Your task to perform on an android device: change the clock display to show seconds Image 0: 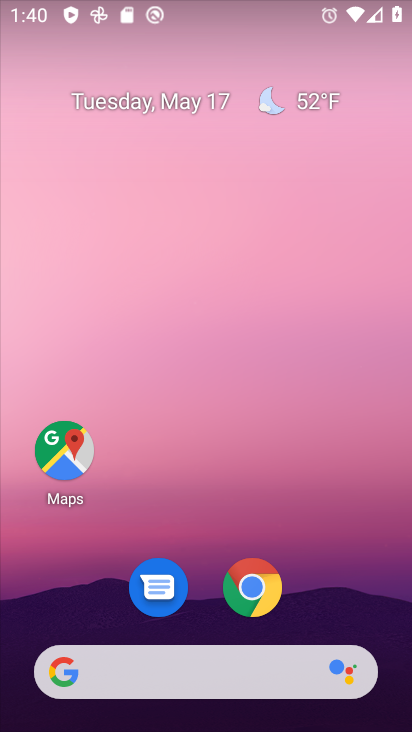
Step 0: drag from (374, 603) to (267, 233)
Your task to perform on an android device: change the clock display to show seconds Image 1: 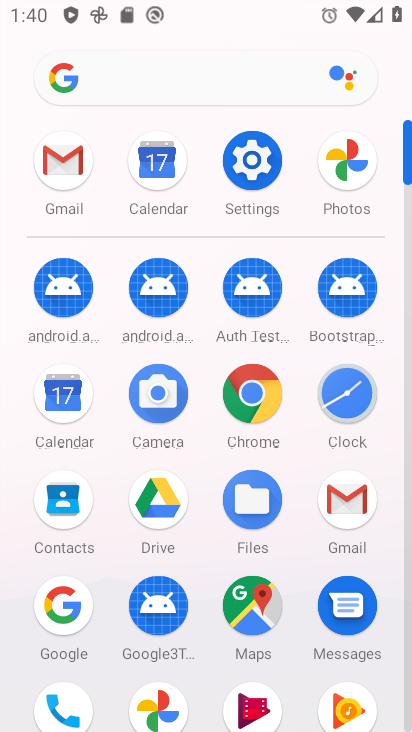
Step 1: click (336, 412)
Your task to perform on an android device: change the clock display to show seconds Image 2: 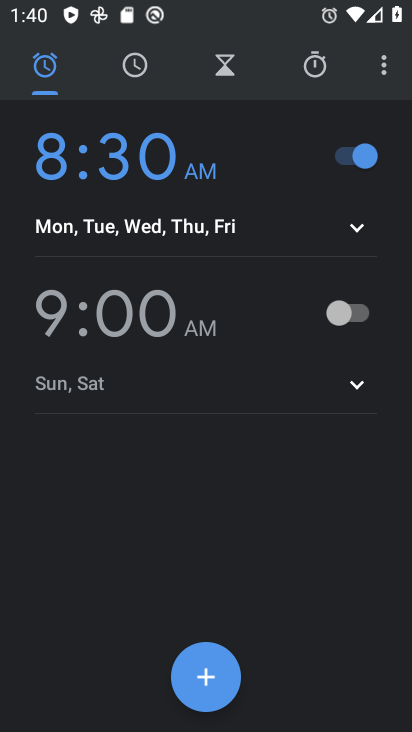
Step 2: click (378, 62)
Your task to perform on an android device: change the clock display to show seconds Image 3: 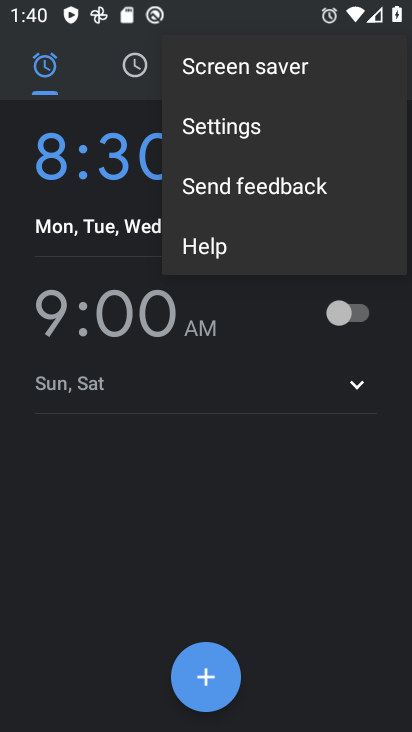
Step 3: click (269, 142)
Your task to perform on an android device: change the clock display to show seconds Image 4: 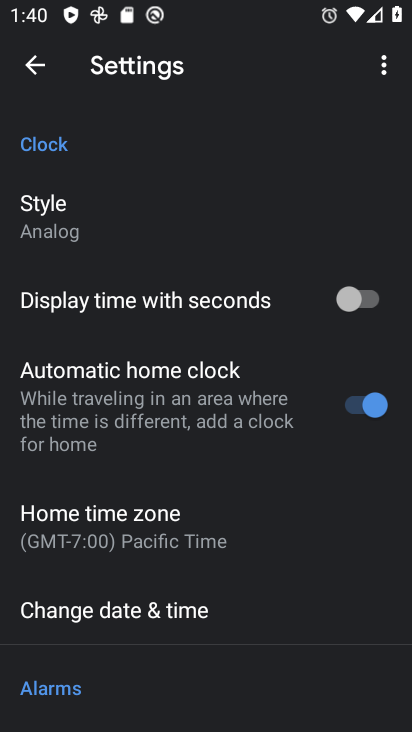
Step 4: click (349, 300)
Your task to perform on an android device: change the clock display to show seconds Image 5: 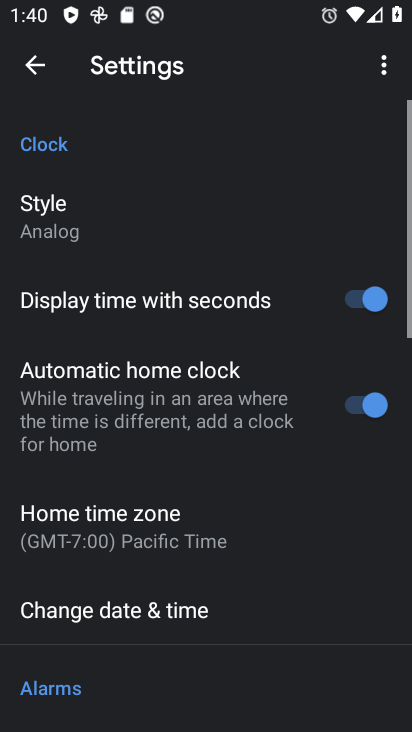
Step 5: task complete